Your task to perform on an android device: Check the news Image 0: 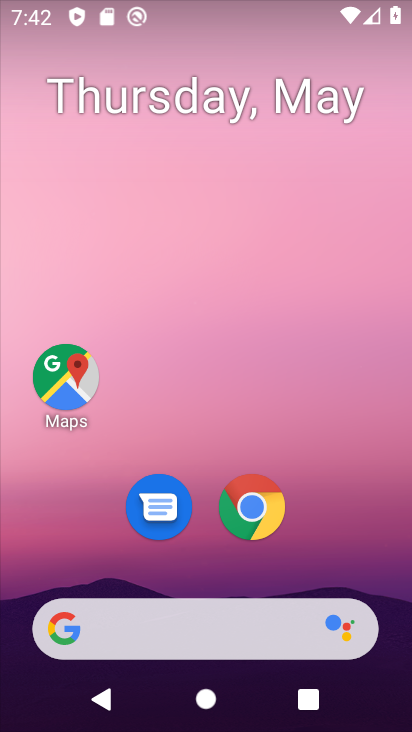
Step 0: drag from (296, 647) to (222, 360)
Your task to perform on an android device: Check the news Image 1: 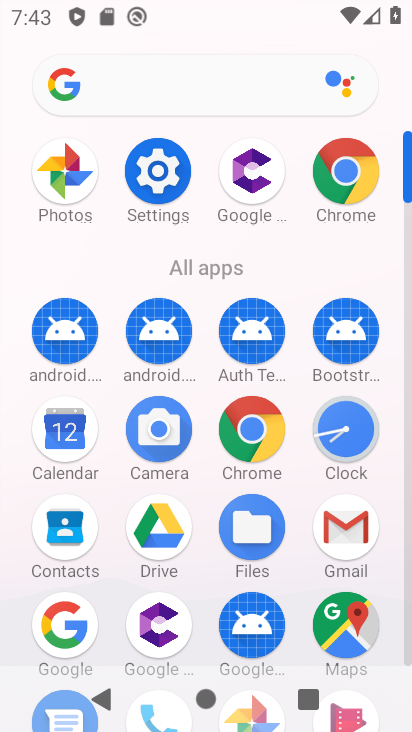
Step 1: click (134, 98)
Your task to perform on an android device: Check the news Image 2: 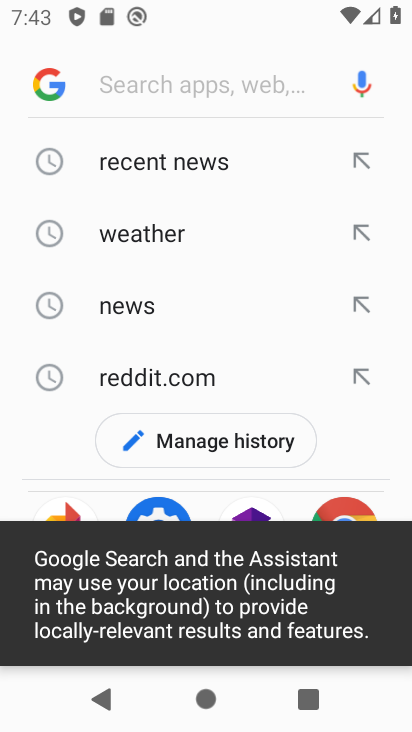
Step 2: click (136, 307)
Your task to perform on an android device: Check the news Image 3: 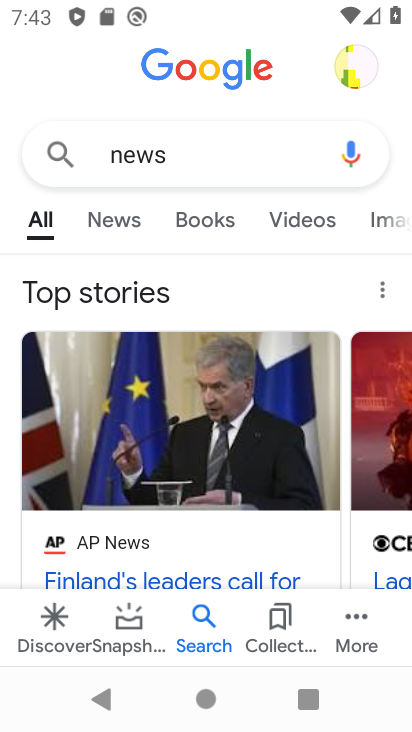
Step 3: task complete